Your task to perform on an android device: check google app version Image 0: 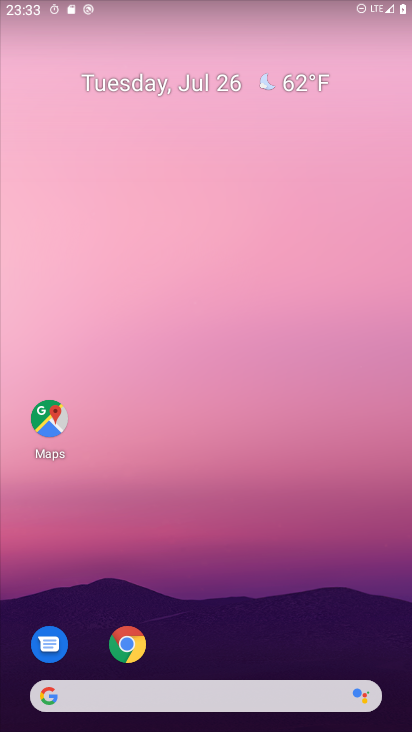
Step 0: drag from (204, 644) to (212, 67)
Your task to perform on an android device: check google app version Image 1: 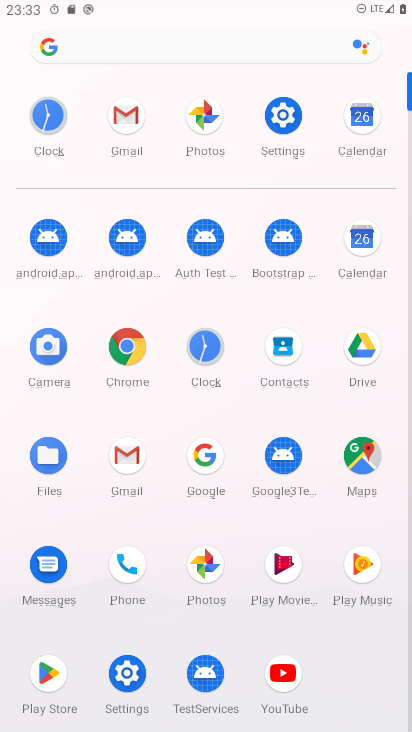
Step 1: click (202, 469)
Your task to perform on an android device: check google app version Image 2: 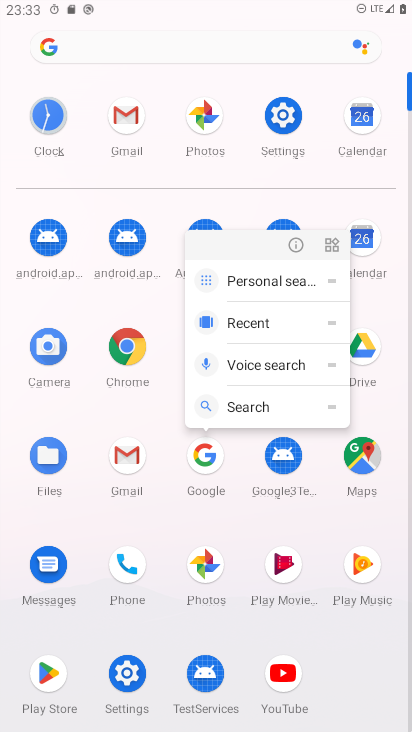
Step 2: click (295, 249)
Your task to perform on an android device: check google app version Image 3: 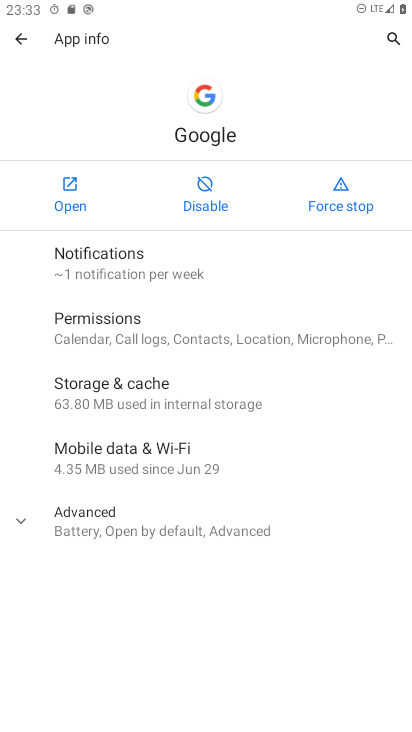
Step 3: click (26, 525)
Your task to perform on an android device: check google app version Image 4: 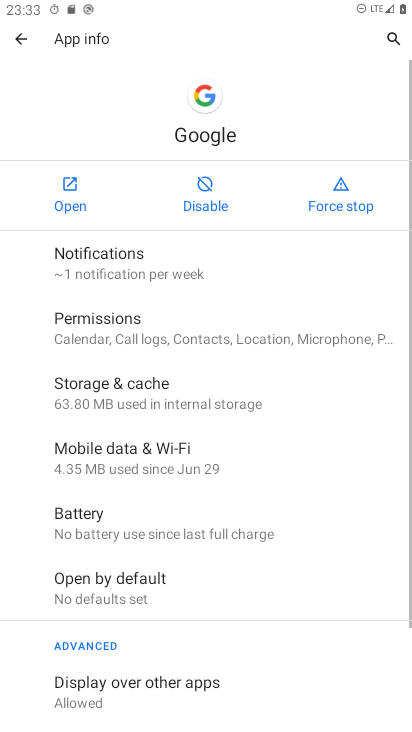
Step 4: task complete